Your task to perform on an android device: turn off sleep mode Image 0: 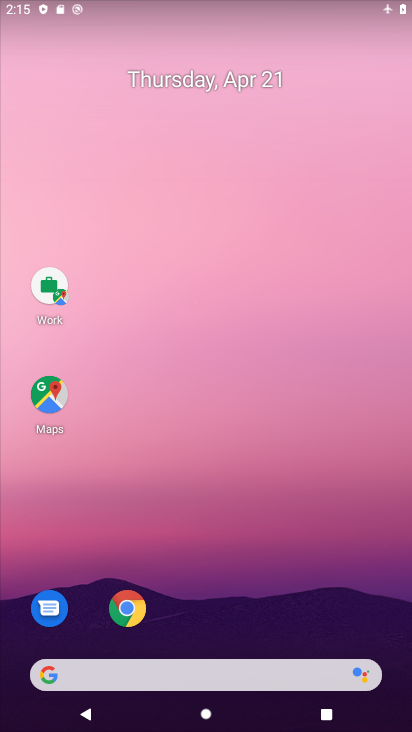
Step 0: drag from (182, 644) to (247, 182)
Your task to perform on an android device: turn off sleep mode Image 1: 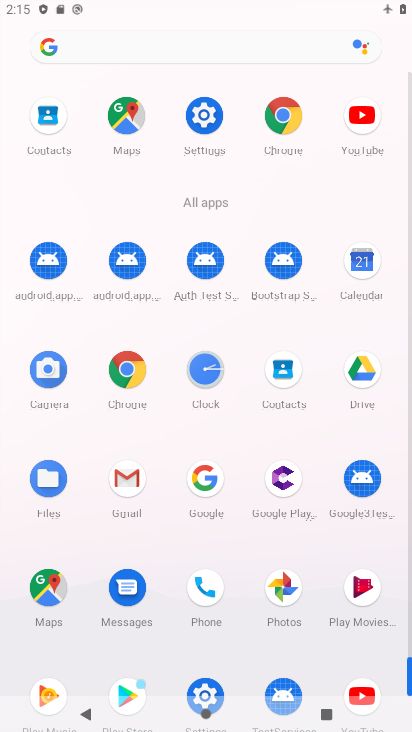
Step 1: task complete